Your task to perform on an android device: Do I have any events today? Image 0: 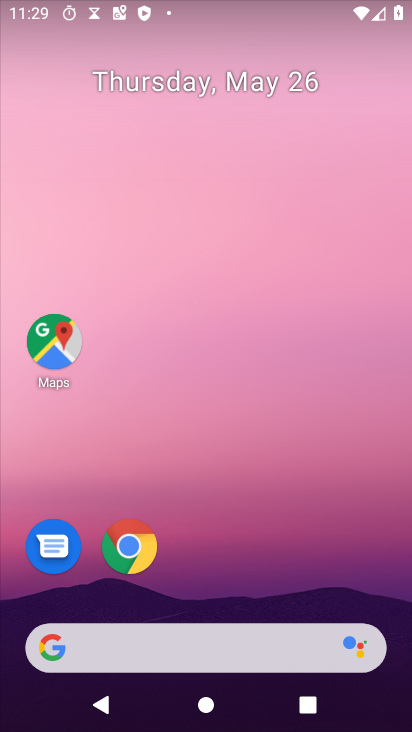
Step 0: drag from (388, 591) to (393, 160)
Your task to perform on an android device: Do I have any events today? Image 1: 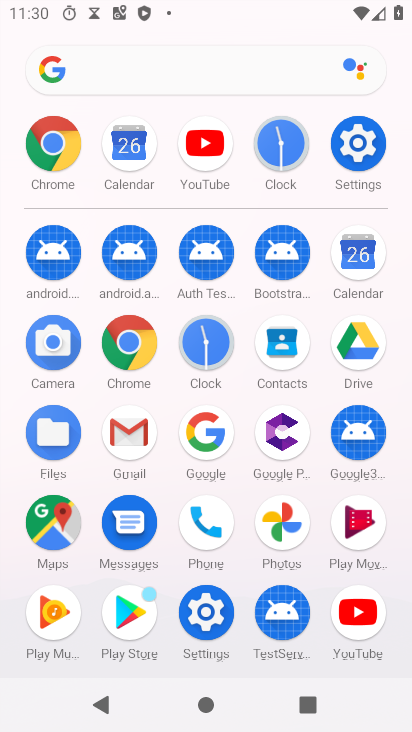
Step 1: click (359, 261)
Your task to perform on an android device: Do I have any events today? Image 2: 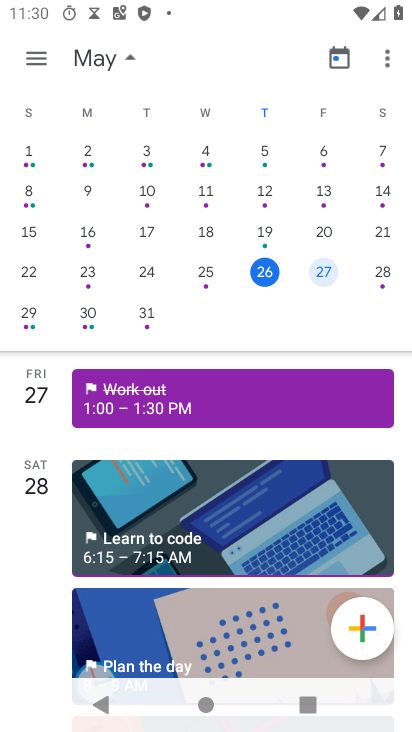
Step 2: drag from (357, 188) to (20, 185)
Your task to perform on an android device: Do I have any events today? Image 3: 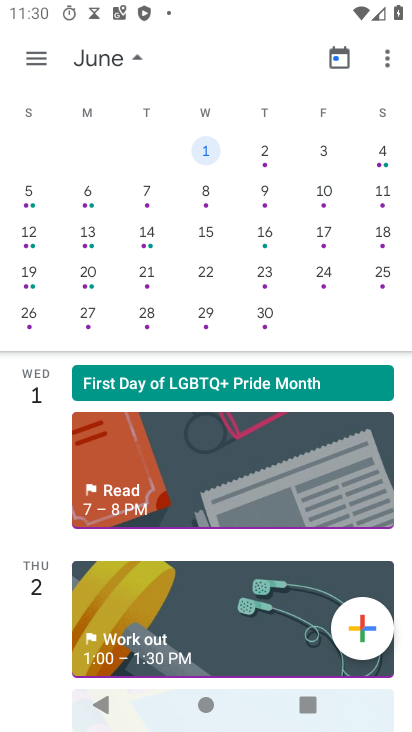
Step 3: drag from (43, 219) to (320, 256)
Your task to perform on an android device: Do I have any events today? Image 4: 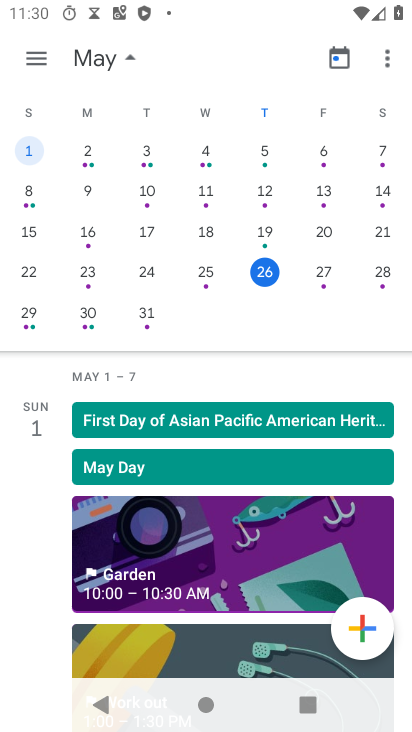
Step 4: click (255, 274)
Your task to perform on an android device: Do I have any events today? Image 5: 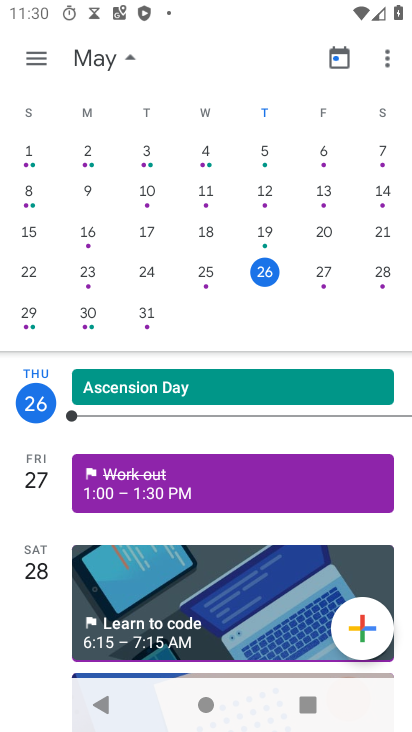
Step 5: task complete